Your task to perform on an android device: turn off javascript in the chrome app Image 0: 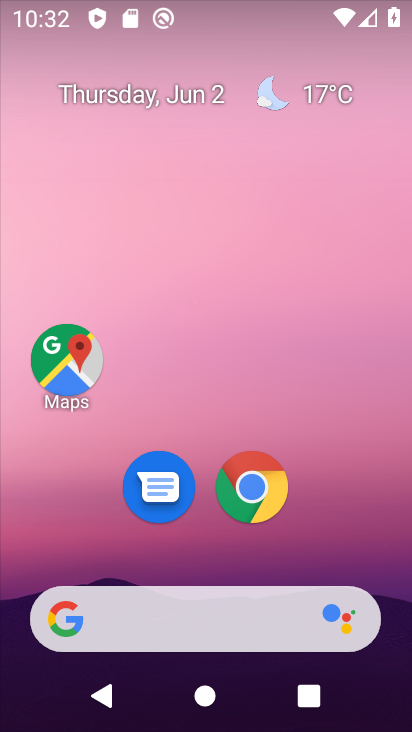
Step 0: click (236, 516)
Your task to perform on an android device: turn off javascript in the chrome app Image 1: 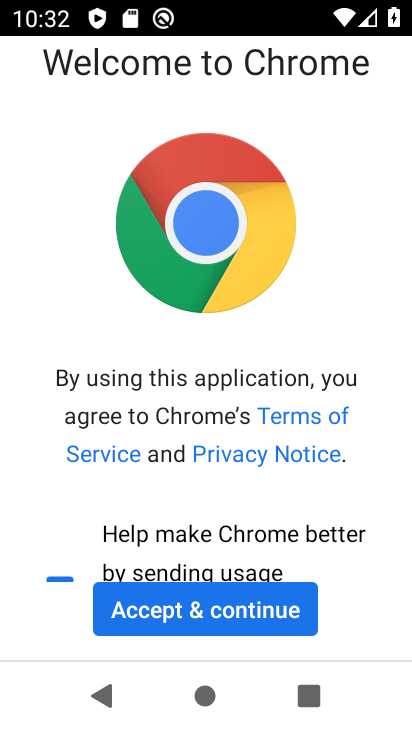
Step 1: click (273, 601)
Your task to perform on an android device: turn off javascript in the chrome app Image 2: 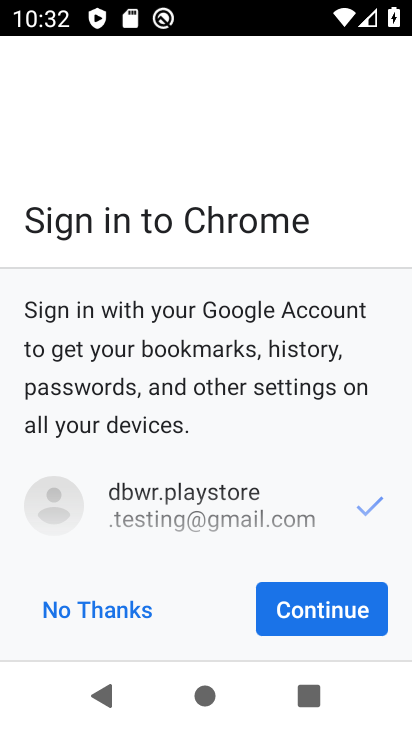
Step 2: click (301, 614)
Your task to perform on an android device: turn off javascript in the chrome app Image 3: 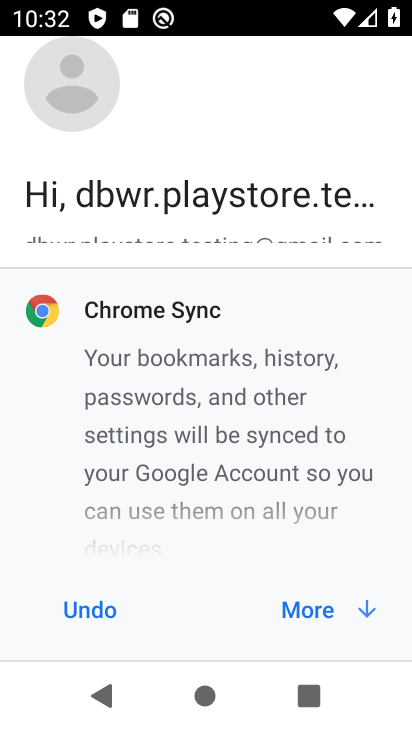
Step 3: click (301, 614)
Your task to perform on an android device: turn off javascript in the chrome app Image 4: 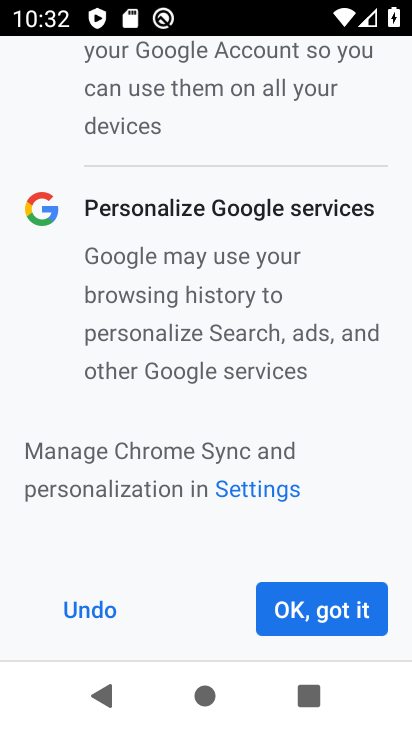
Step 4: click (301, 614)
Your task to perform on an android device: turn off javascript in the chrome app Image 5: 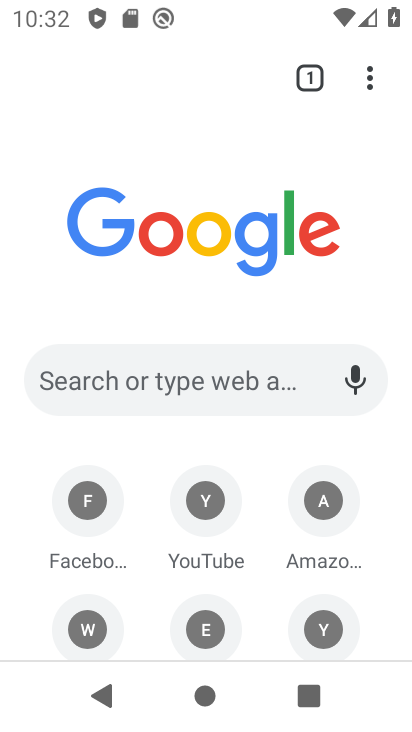
Step 5: click (368, 79)
Your task to perform on an android device: turn off javascript in the chrome app Image 6: 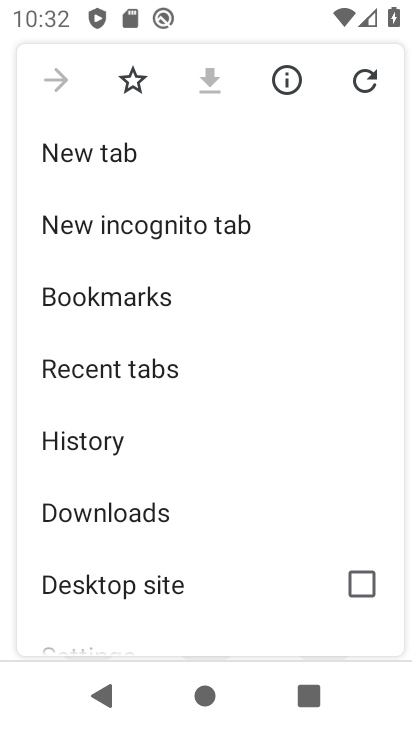
Step 6: drag from (141, 607) to (169, 204)
Your task to perform on an android device: turn off javascript in the chrome app Image 7: 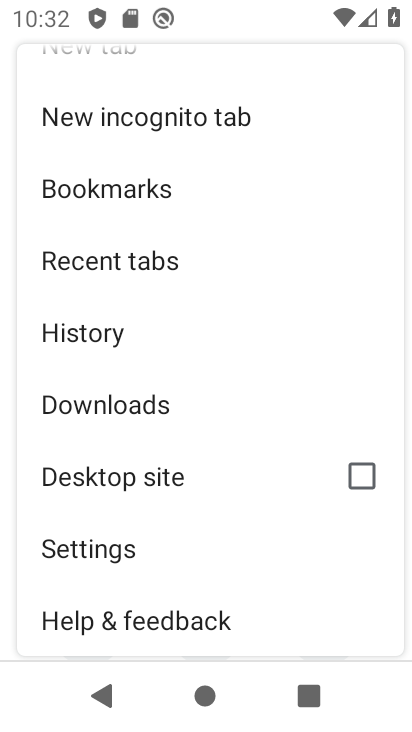
Step 7: click (95, 550)
Your task to perform on an android device: turn off javascript in the chrome app Image 8: 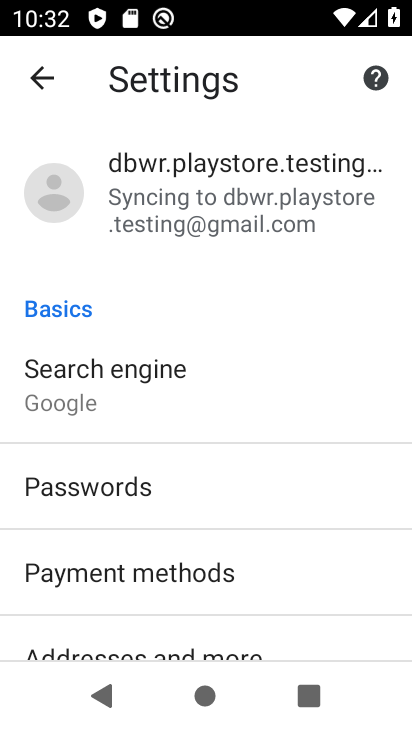
Step 8: drag from (122, 602) to (170, 157)
Your task to perform on an android device: turn off javascript in the chrome app Image 9: 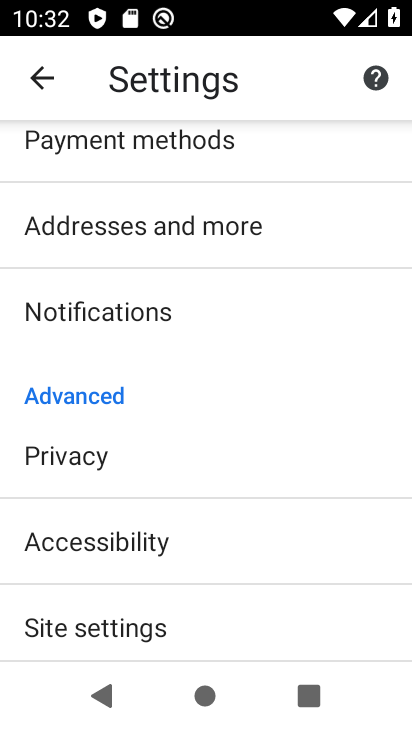
Step 9: click (90, 629)
Your task to perform on an android device: turn off javascript in the chrome app Image 10: 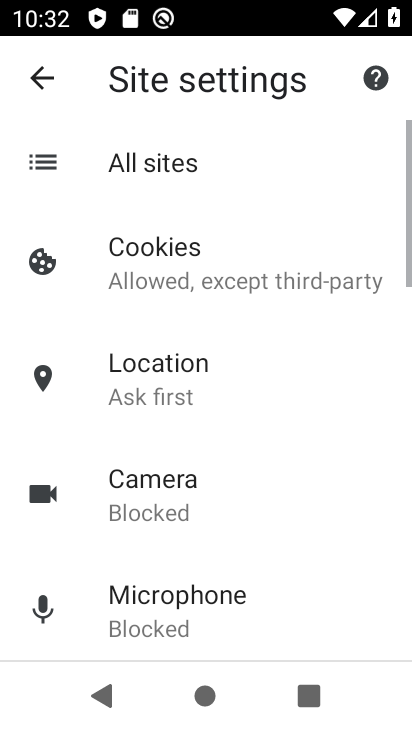
Step 10: drag from (123, 486) to (176, 94)
Your task to perform on an android device: turn off javascript in the chrome app Image 11: 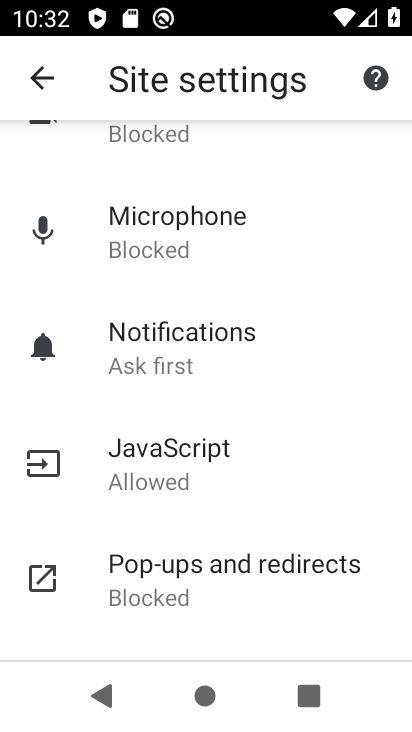
Step 11: click (157, 471)
Your task to perform on an android device: turn off javascript in the chrome app Image 12: 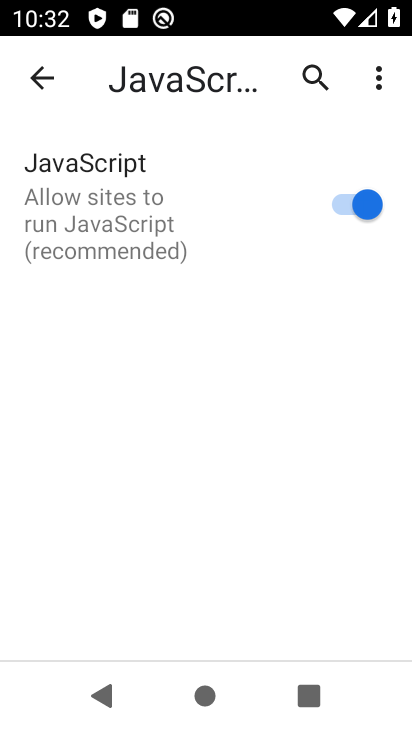
Step 12: click (342, 203)
Your task to perform on an android device: turn off javascript in the chrome app Image 13: 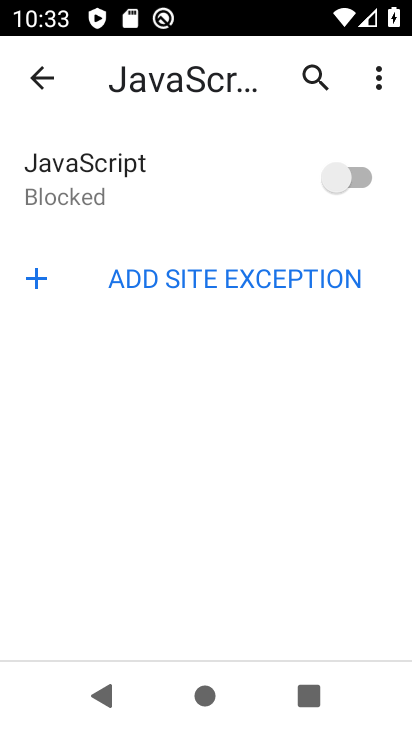
Step 13: task complete